Your task to perform on an android device: open app "eBay: The shopping marketplace" Image 0: 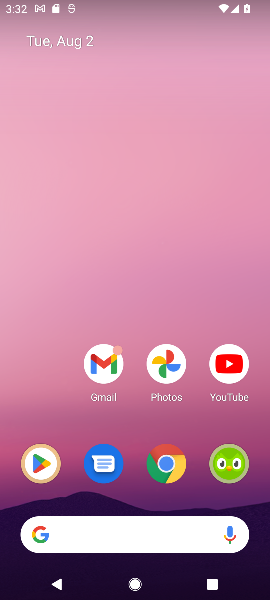
Step 0: press home button
Your task to perform on an android device: open app "eBay: The shopping marketplace" Image 1: 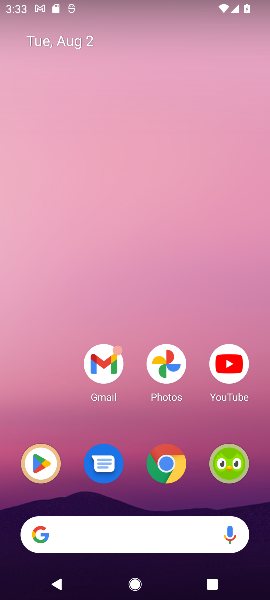
Step 1: click (38, 460)
Your task to perform on an android device: open app "eBay: The shopping marketplace" Image 2: 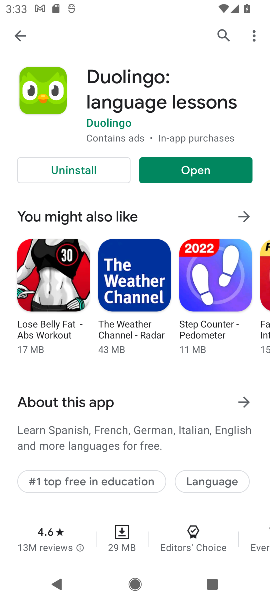
Step 2: click (220, 34)
Your task to perform on an android device: open app "eBay: The shopping marketplace" Image 3: 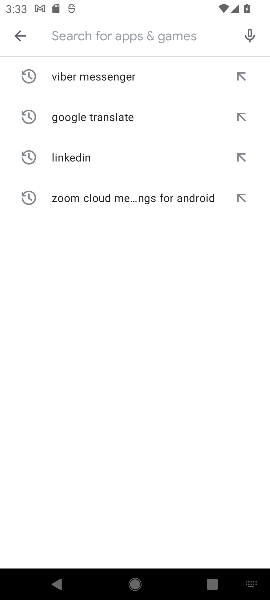
Step 3: type "eBay: The shopping marketplace"
Your task to perform on an android device: open app "eBay: The shopping marketplace" Image 4: 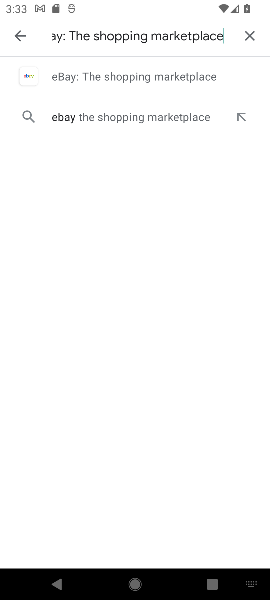
Step 4: click (103, 76)
Your task to perform on an android device: open app "eBay: The shopping marketplace" Image 5: 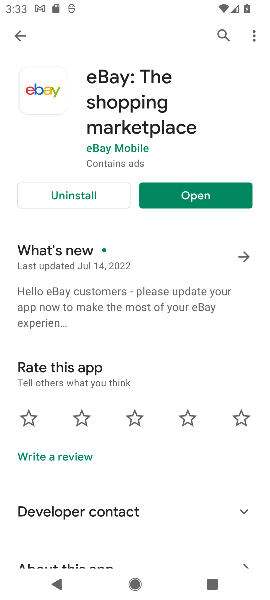
Step 5: click (187, 200)
Your task to perform on an android device: open app "eBay: The shopping marketplace" Image 6: 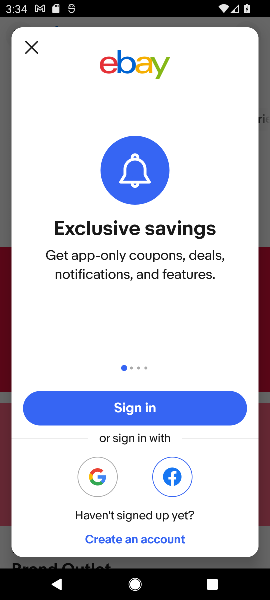
Step 6: task complete